Your task to perform on an android device: toggle priority inbox in the gmail app Image 0: 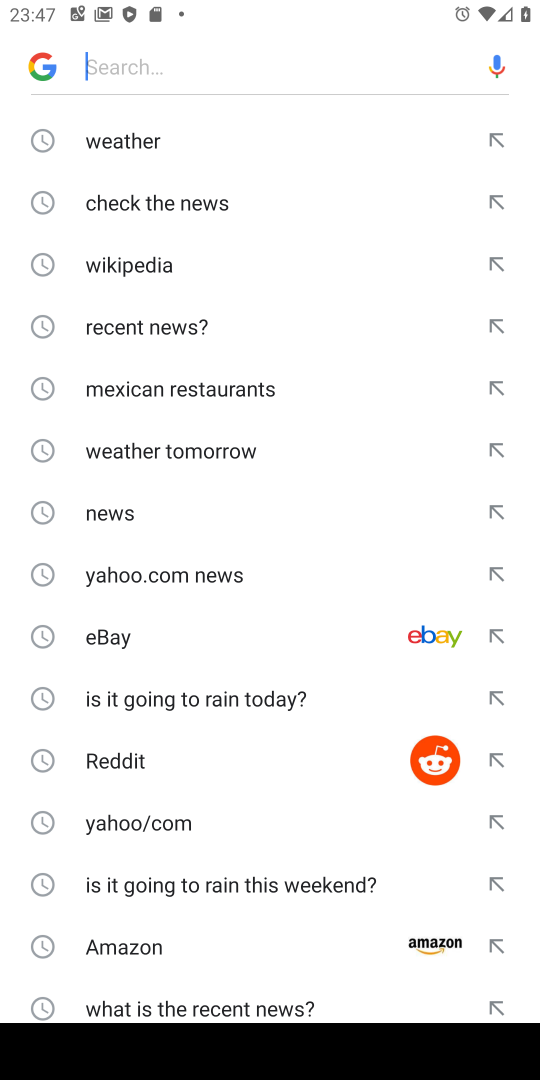
Step 0: press home button
Your task to perform on an android device: toggle priority inbox in the gmail app Image 1: 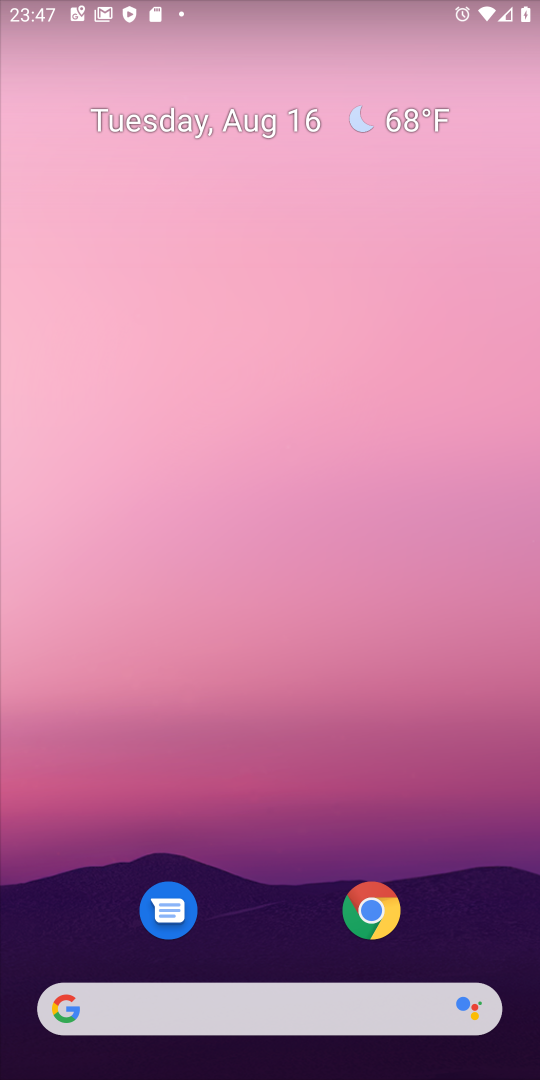
Step 1: drag from (459, 927) to (536, 212)
Your task to perform on an android device: toggle priority inbox in the gmail app Image 2: 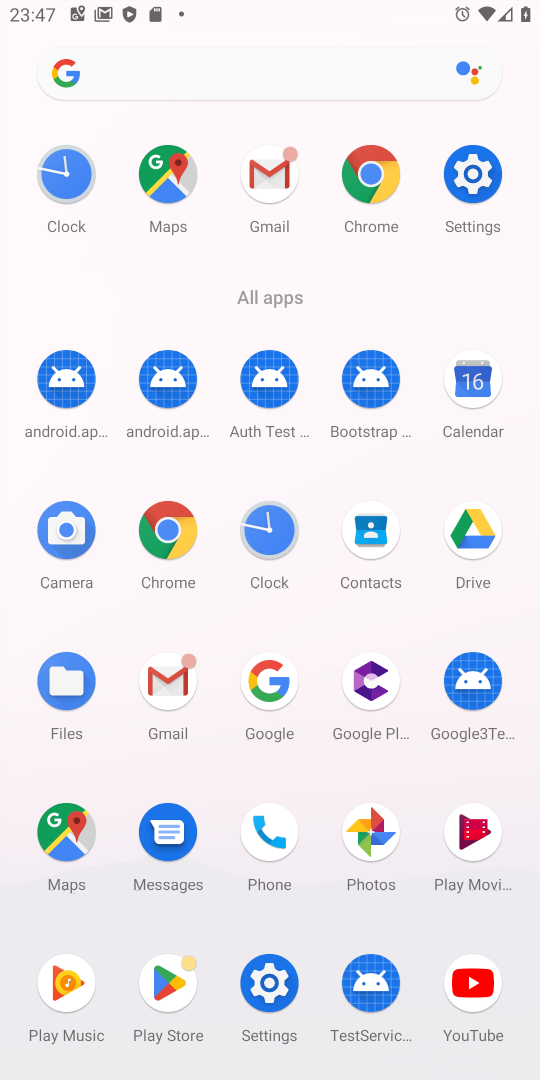
Step 2: click (160, 680)
Your task to perform on an android device: toggle priority inbox in the gmail app Image 3: 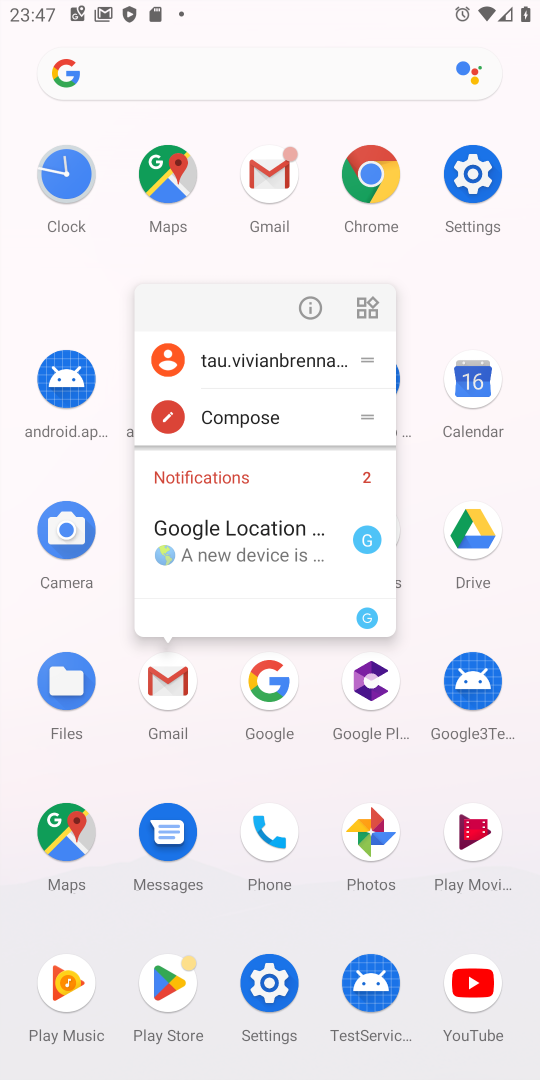
Step 3: click (160, 680)
Your task to perform on an android device: toggle priority inbox in the gmail app Image 4: 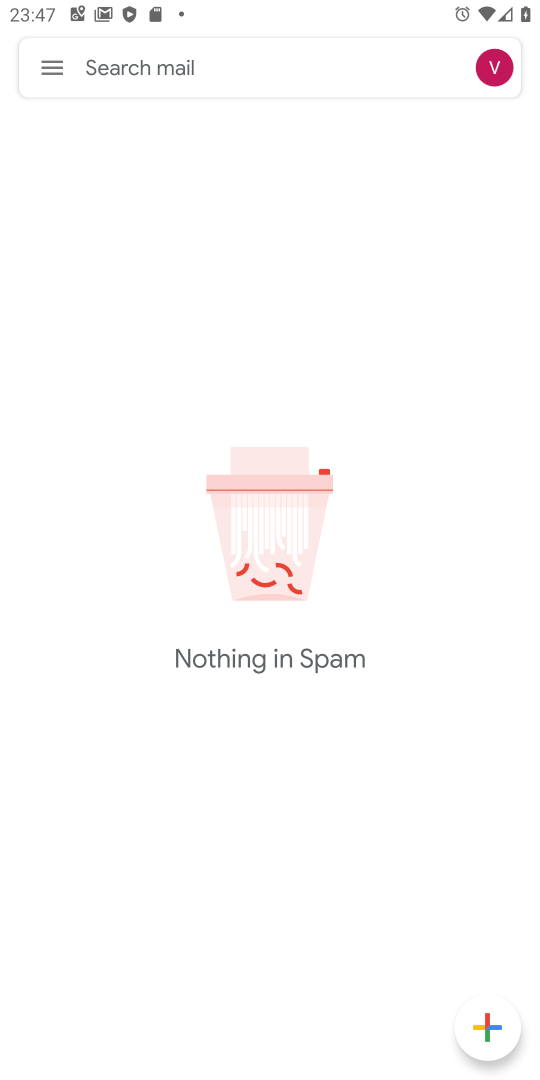
Step 4: click (41, 68)
Your task to perform on an android device: toggle priority inbox in the gmail app Image 5: 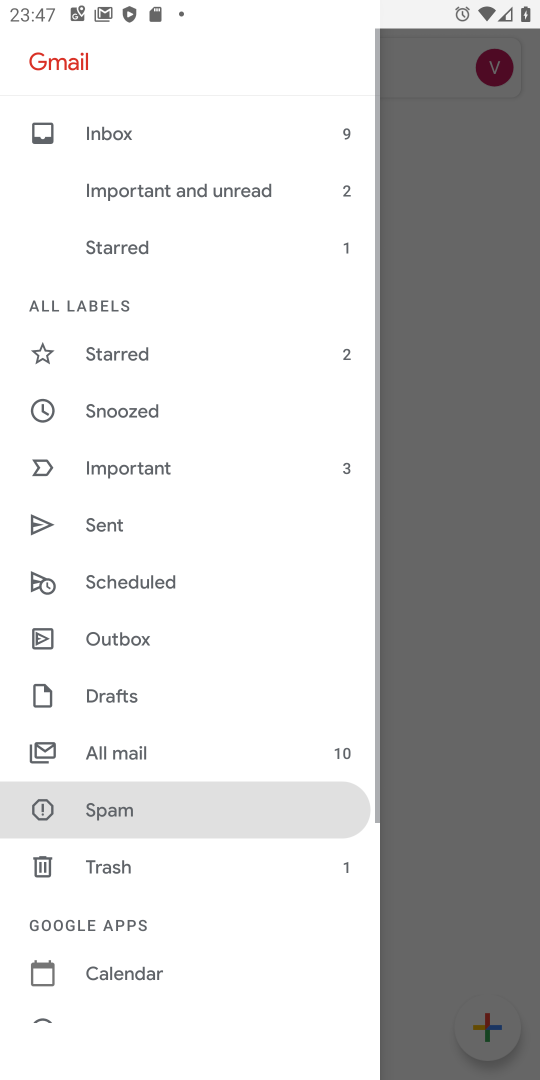
Step 5: drag from (161, 958) to (229, 458)
Your task to perform on an android device: toggle priority inbox in the gmail app Image 6: 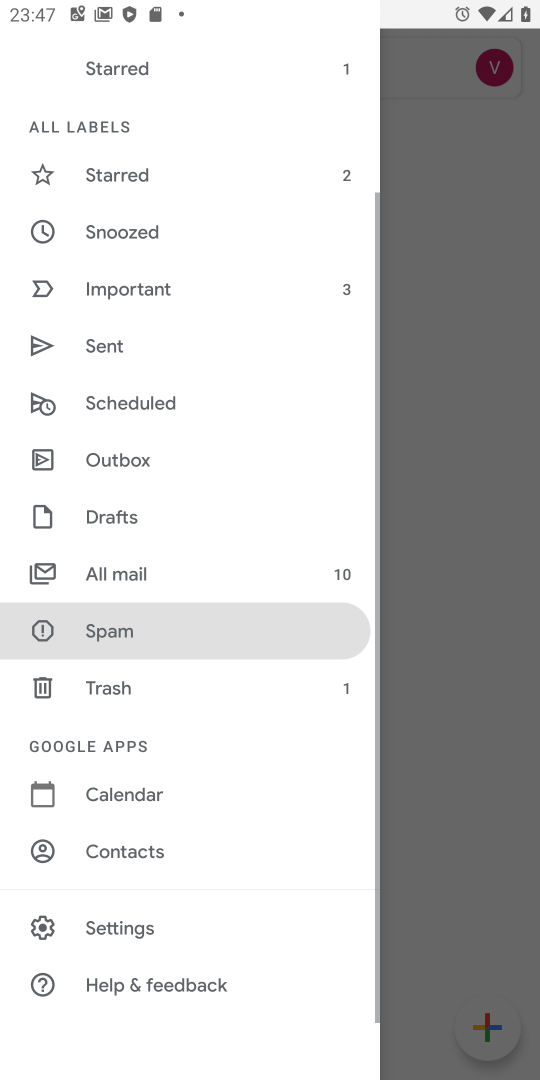
Step 6: click (132, 937)
Your task to perform on an android device: toggle priority inbox in the gmail app Image 7: 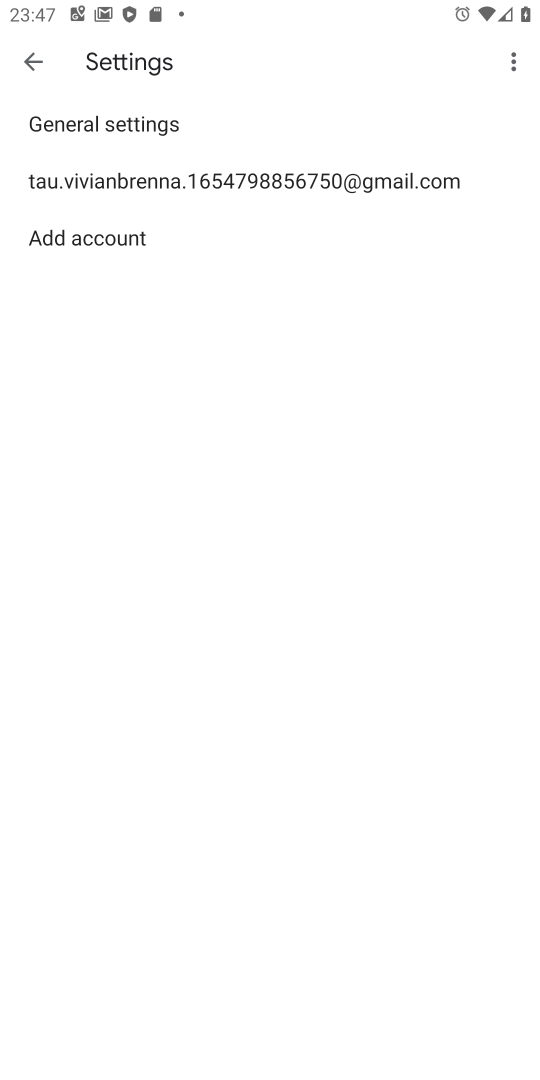
Step 7: click (334, 192)
Your task to perform on an android device: toggle priority inbox in the gmail app Image 8: 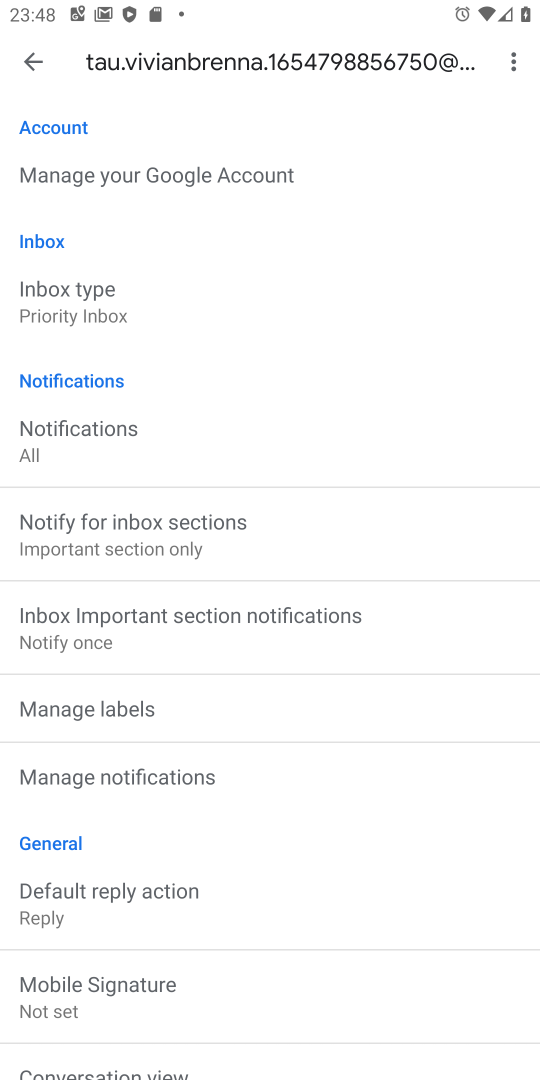
Step 8: click (107, 320)
Your task to perform on an android device: toggle priority inbox in the gmail app Image 9: 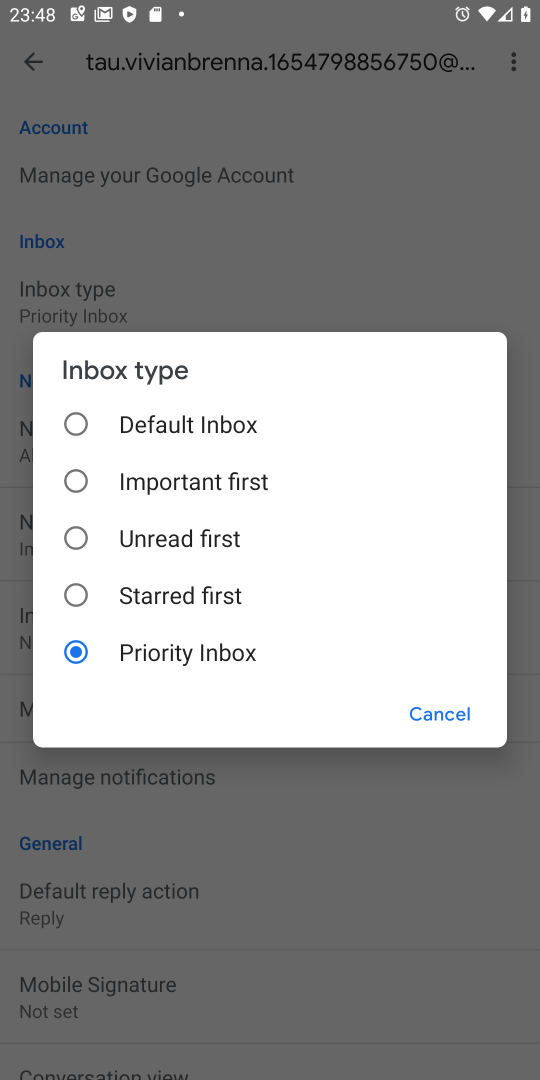
Step 9: click (174, 422)
Your task to perform on an android device: toggle priority inbox in the gmail app Image 10: 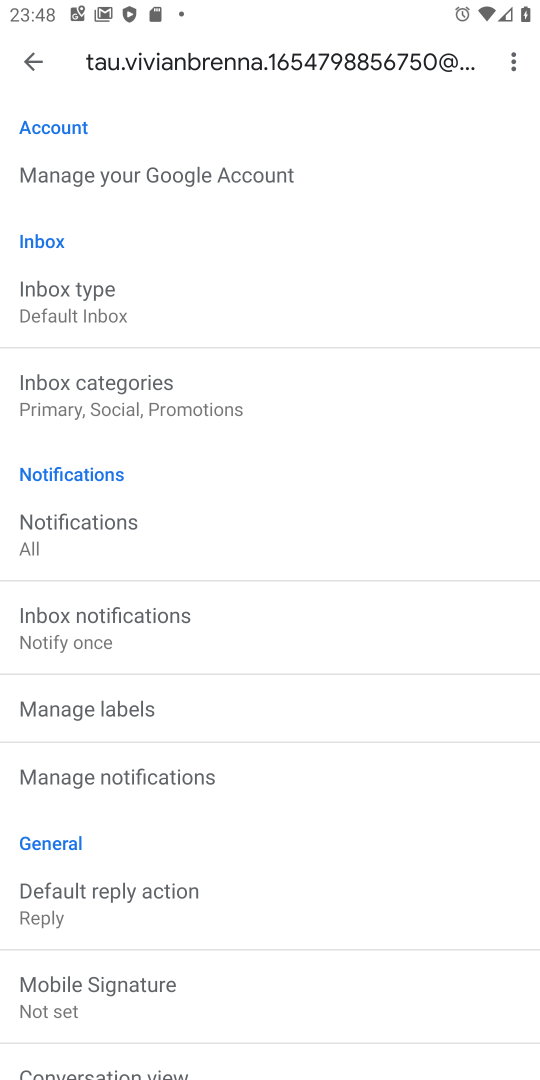
Step 10: task complete